Your task to perform on an android device: refresh tabs in the chrome app Image 0: 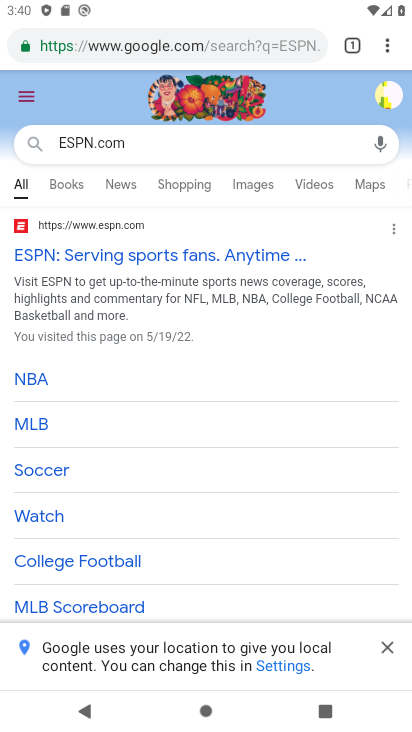
Step 0: click (384, 45)
Your task to perform on an android device: refresh tabs in the chrome app Image 1: 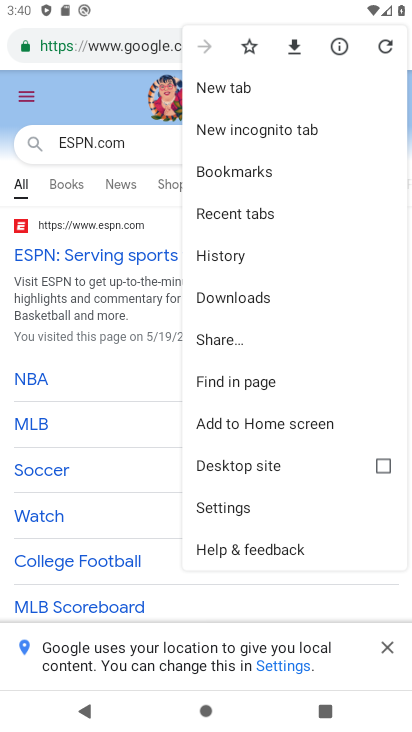
Step 1: click (378, 43)
Your task to perform on an android device: refresh tabs in the chrome app Image 2: 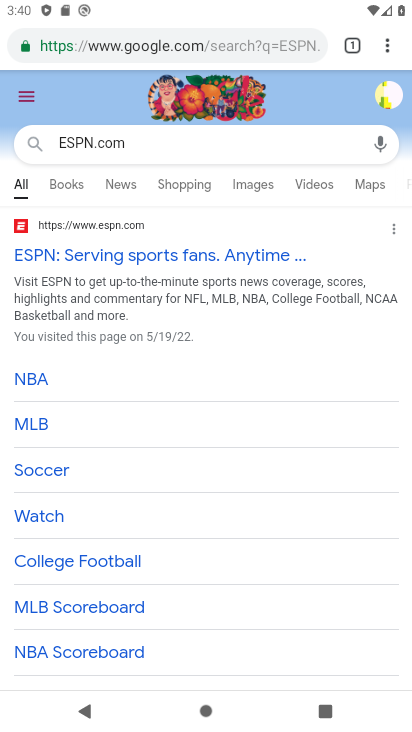
Step 2: task complete